Your task to perform on an android device: open app "Gboard" Image 0: 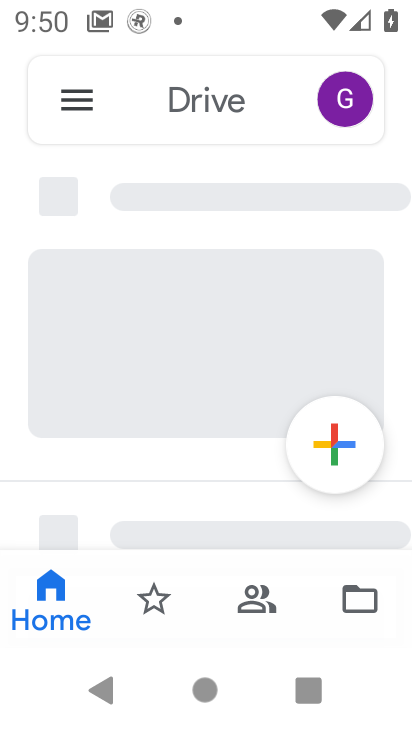
Step 0: press home button
Your task to perform on an android device: open app "Gboard" Image 1: 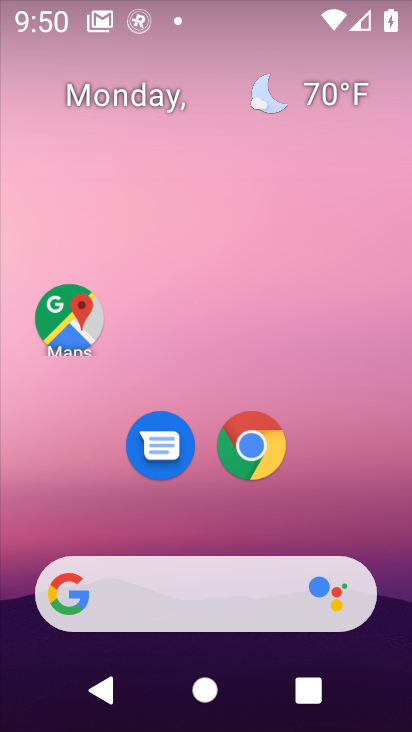
Step 1: drag from (245, 469) to (250, 121)
Your task to perform on an android device: open app "Gboard" Image 2: 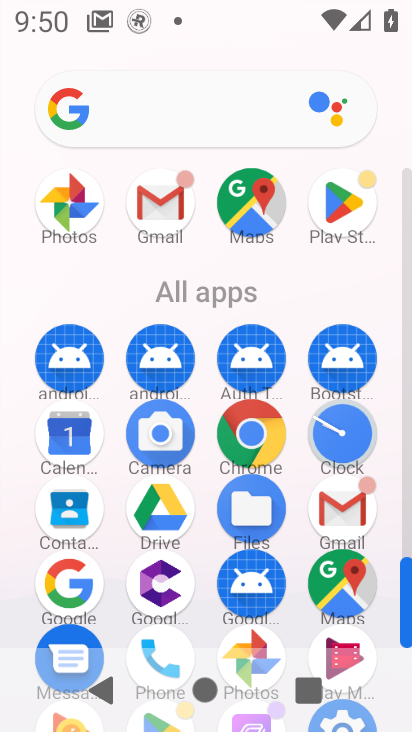
Step 2: click (349, 220)
Your task to perform on an android device: open app "Gboard" Image 3: 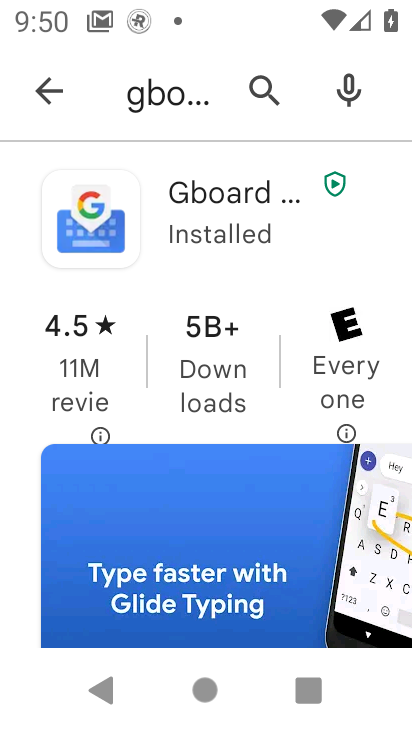
Step 3: click (54, 99)
Your task to perform on an android device: open app "Gboard" Image 4: 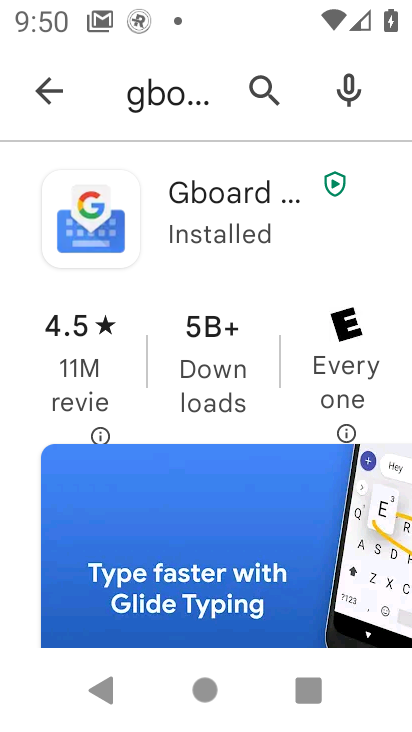
Step 4: task complete